Your task to perform on an android device: set the timer Image 0: 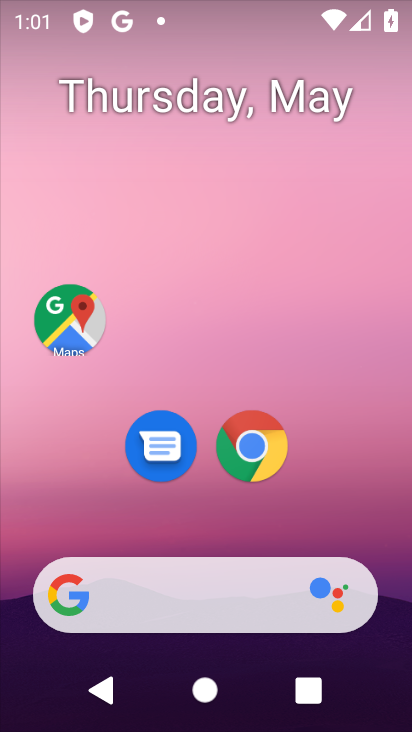
Step 0: drag from (233, 512) to (283, 40)
Your task to perform on an android device: set the timer Image 1: 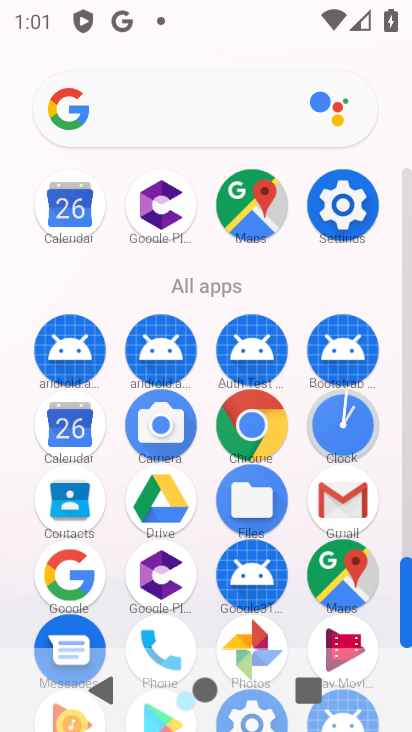
Step 1: click (341, 426)
Your task to perform on an android device: set the timer Image 2: 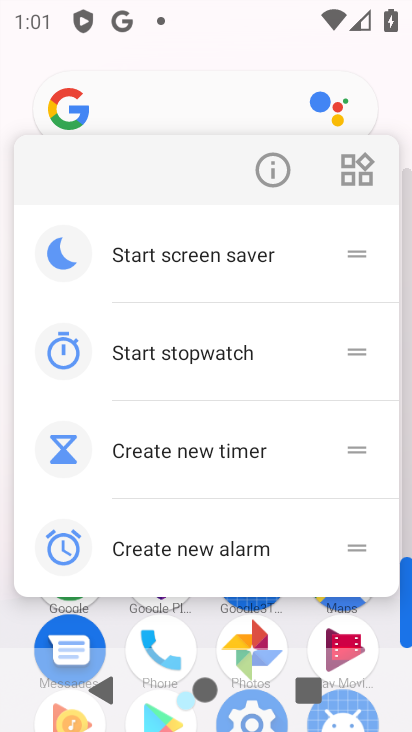
Step 2: drag from (251, 626) to (263, 497)
Your task to perform on an android device: set the timer Image 3: 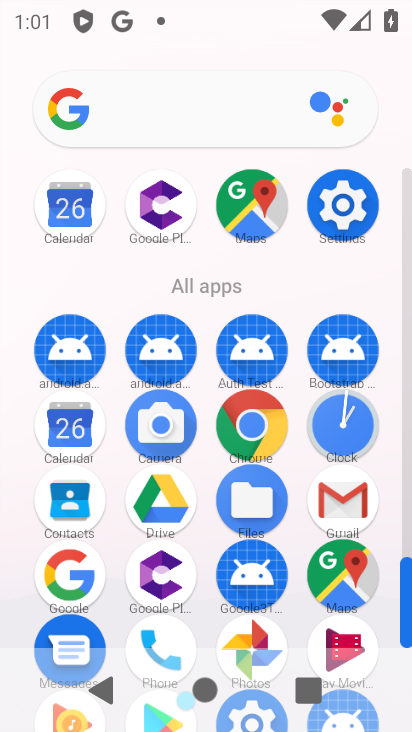
Step 3: click (339, 424)
Your task to perform on an android device: set the timer Image 4: 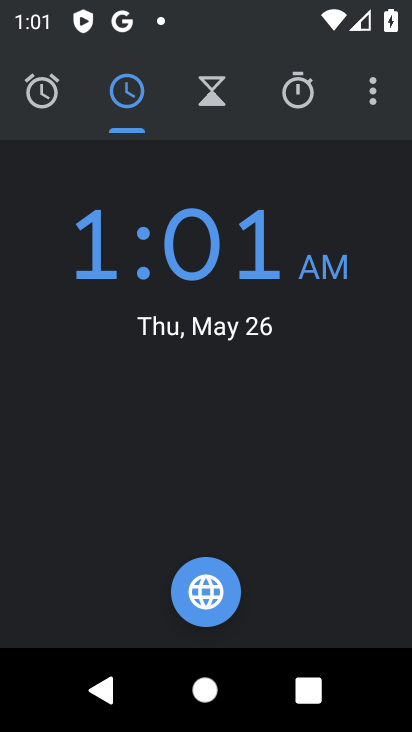
Step 4: click (232, 109)
Your task to perform on an android device: set the timer Image 5: 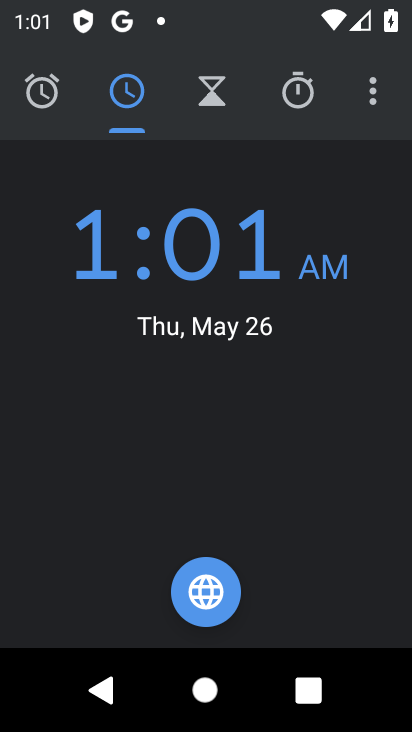
Step 5: click (216, 106)
Your task to perform on an android device: set the timer Image 6: 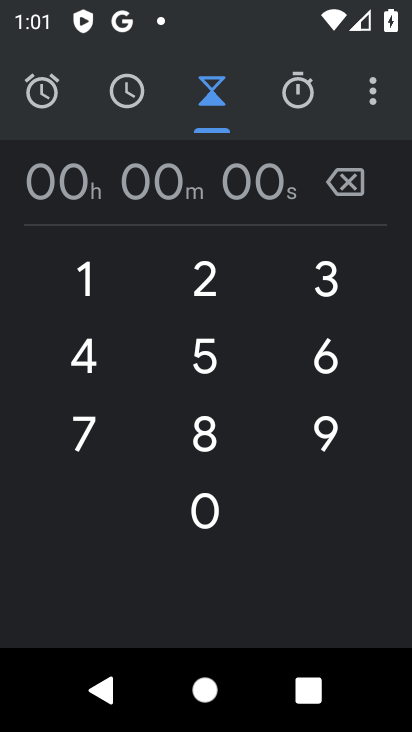
Step 6: click (207, 436)
Your task to perform on an android device: set the timer Image 7: 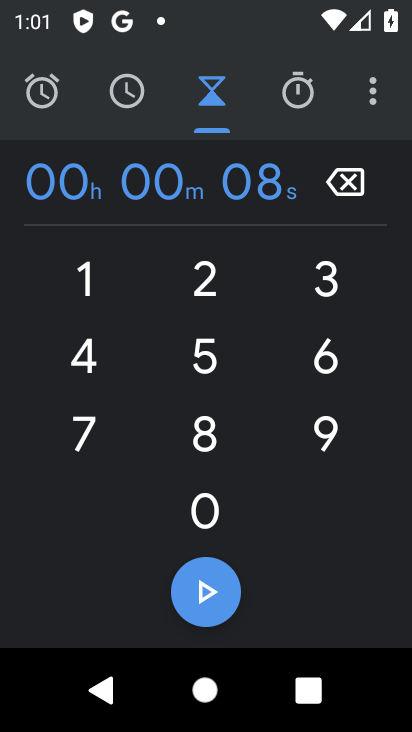
Step 7: click (76, 353)
Your task to perform on an android device: set the timer Image 8: 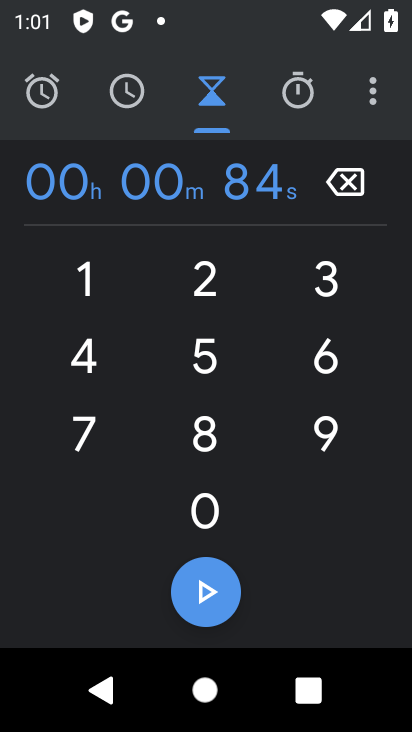
Step 8: click (313, 357)
Your task to perform on an android device: set the timer Image 9: 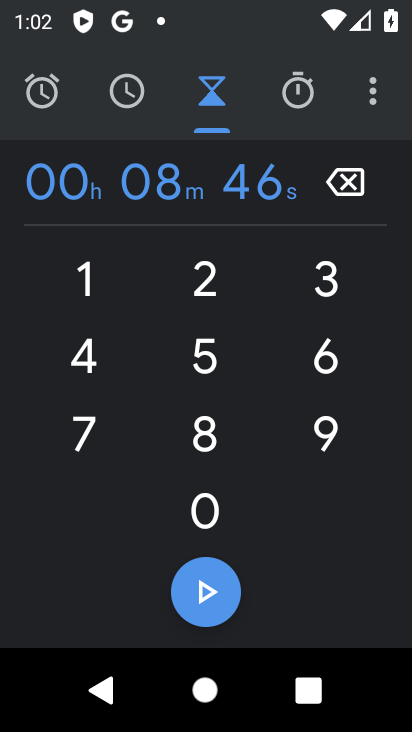
Step 9: click (195, 606)
Your task to perform on an android device: set the timer Image 10: 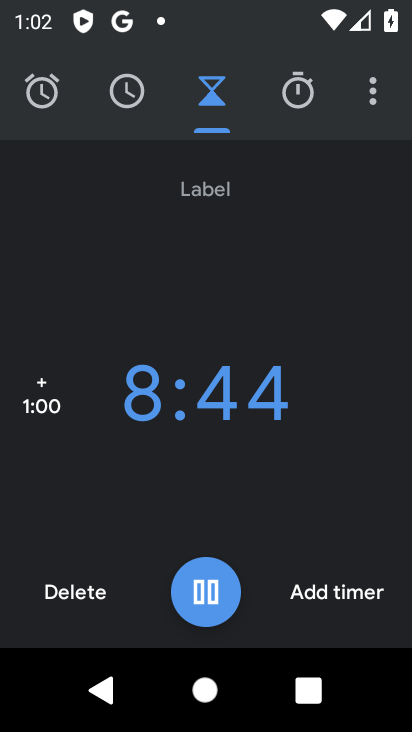
Step 10: task complete